Your task to perform on an android device: check data usage Image 0: 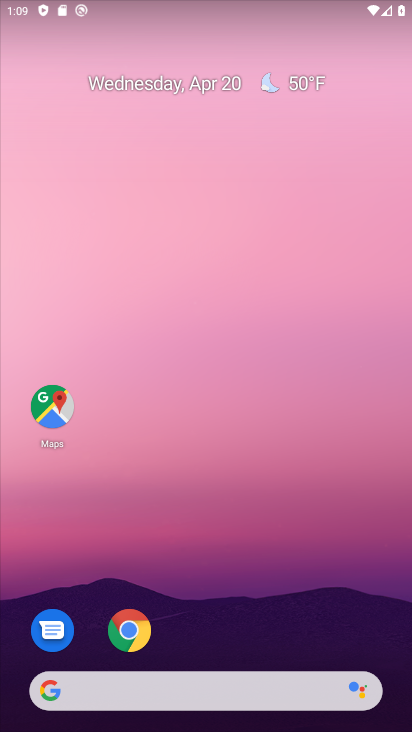
Step 0: drag from (246, 562) to (214, 111)
Your task to perform on an android device: check data usage Image 1: 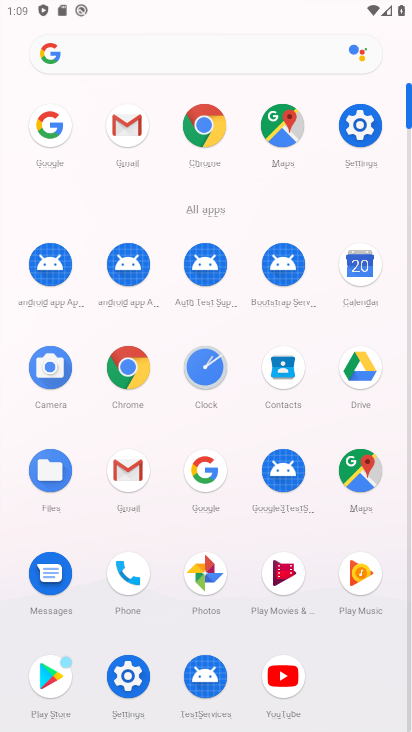
Step 1: click (357, 126)
Your task to perform on an android device: check data usage Image 2: 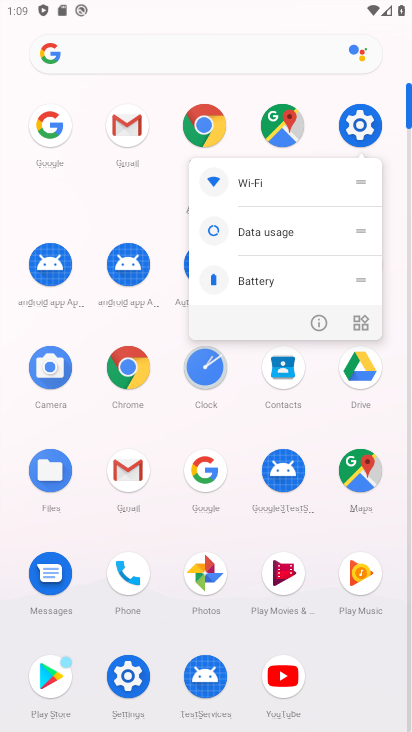
Step 2: click (357, 126)
Your task to perform on an android device: check data usage Image 3: 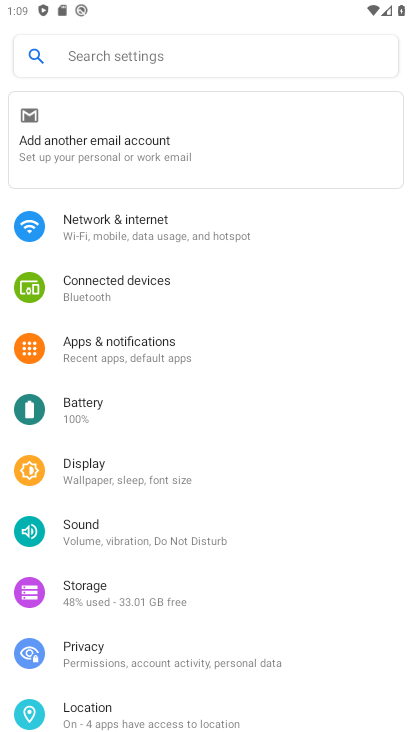
Step 3: click (147, 239)
Your task to perform on an android device: check data usage Image 4: 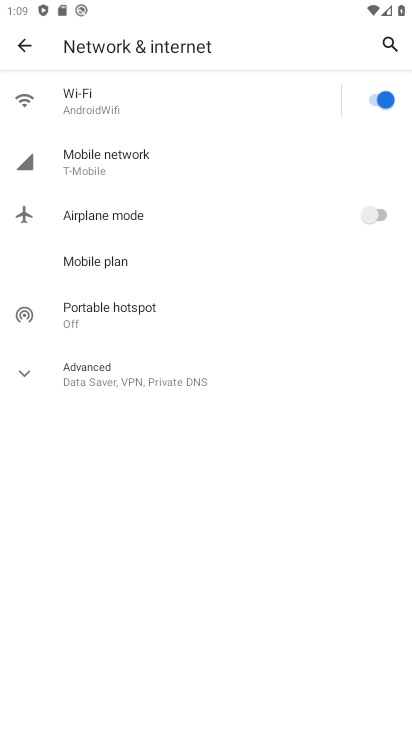
Step 4: click (116, 164)
Your task to perform on an android device: check data usage Image 5: 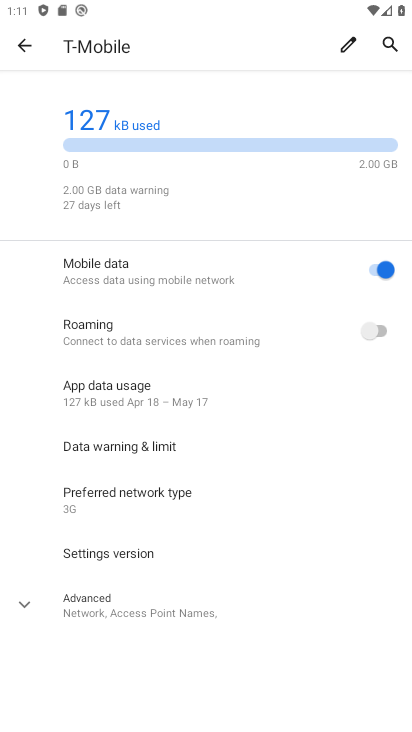
Step 5: task complete